Your task to perform on an android device: change keyboard looks Image 0: 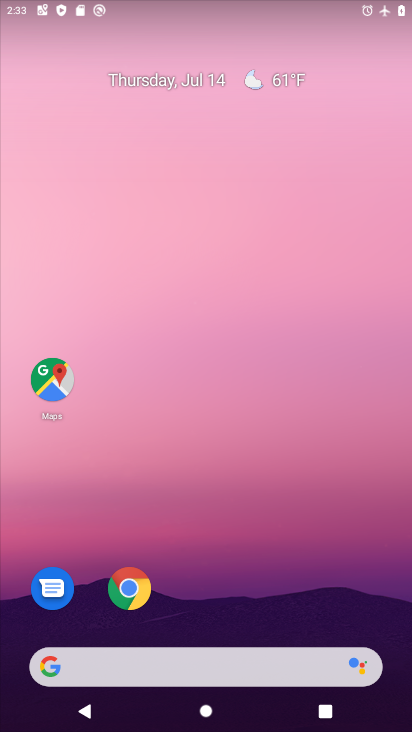
Step 0: drag from (269, 628) to (280, 260)
Your task to perform on an android device: change keyboard looks Image 1: 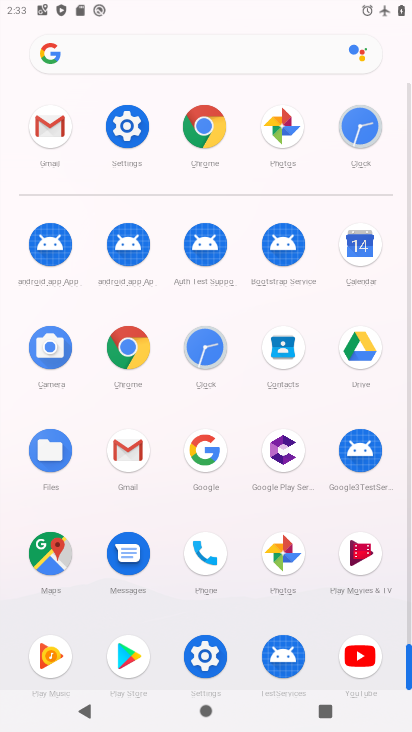
Step 1: click (131, 111)
Your task to perform on an android device: change keyboard looks Image 2: 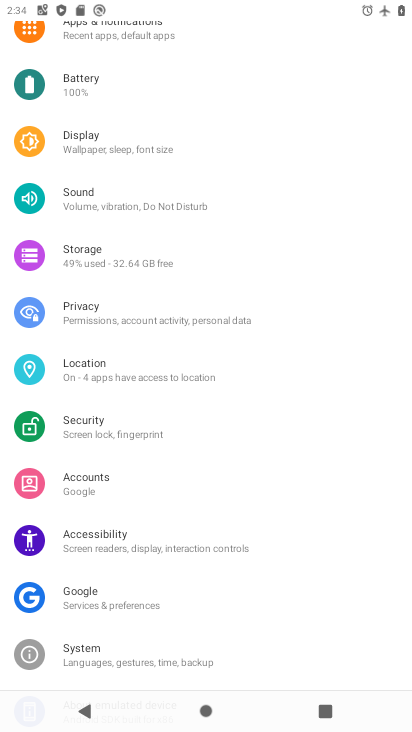
Step 2: drag from (138, 460) to (219, 226)
Your task to perform on an android device: change keyboard looks Image 3: 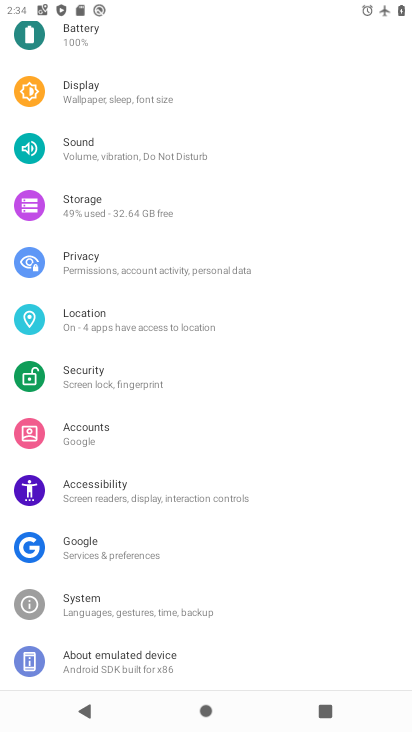
Step 3: click (116, 654)
Your task to perform on an android device: change keyboard looks Image 4: 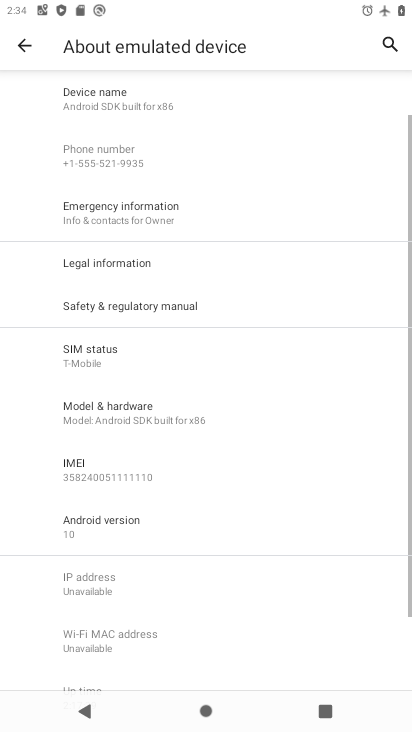
Step 4: click (20, 60)
Your task to perform on an android device: change keyboard looks Image 5: 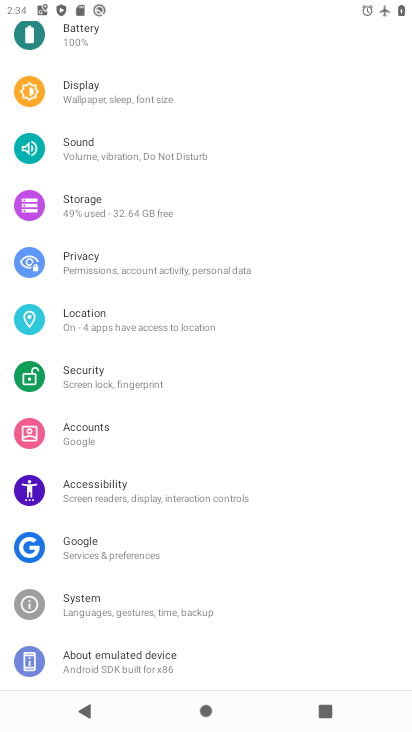
Step 5: click (136, 493)
Your task to perform on an android device: change keyboard looks Image 6: 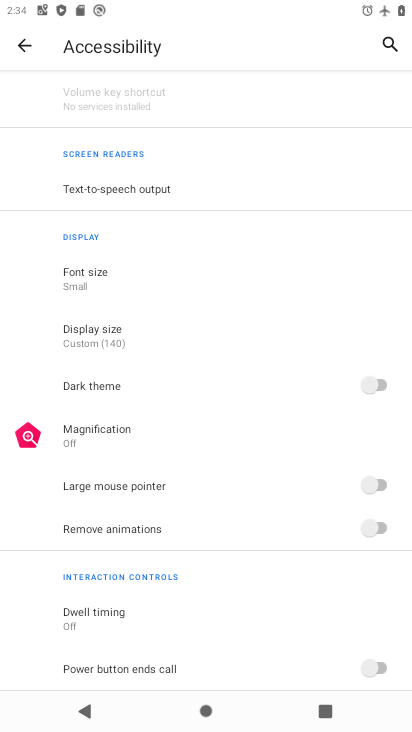
Step 6: click (29, 33)
Your task to perform on an android device: change keyboard looks Image 7: 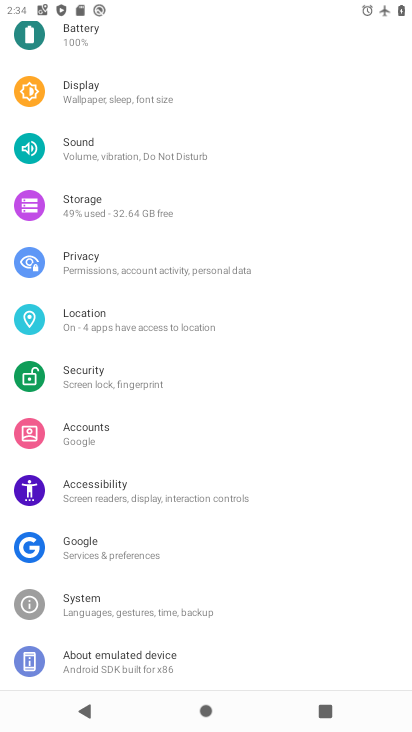
Step 7: task complete